Your task to perform on an android device: What's on my calendar today? Image 0: 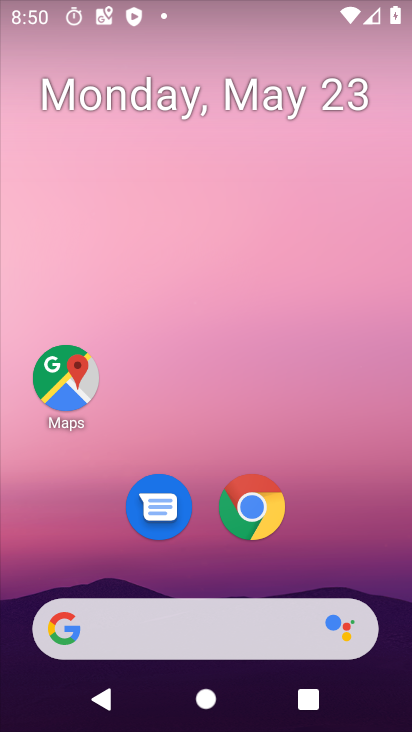
Step 0: drag from (362, 521) to (330, 107)
Your task to perform on an android device: What's on my calendar today? Image 1: 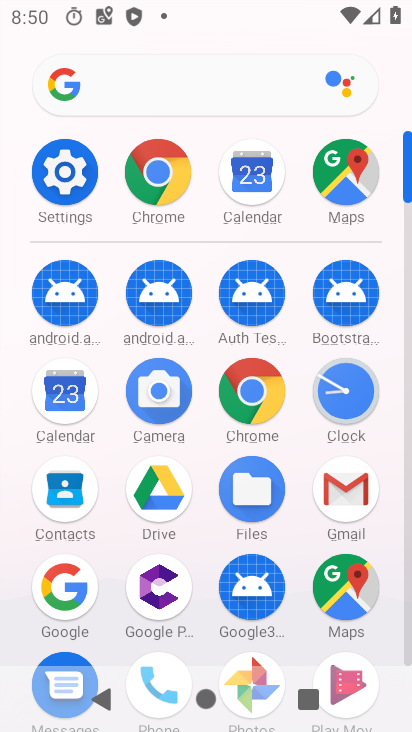
Step 1: click (42, 392)
Your task to perform on an android device: What's on my calendar today? Image 2: 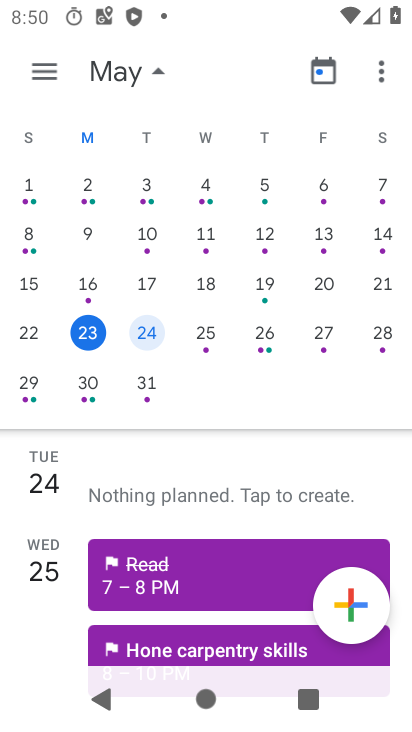
Step 2: task complete